Your task to perform on an android device: Go to sound settings Image 0: 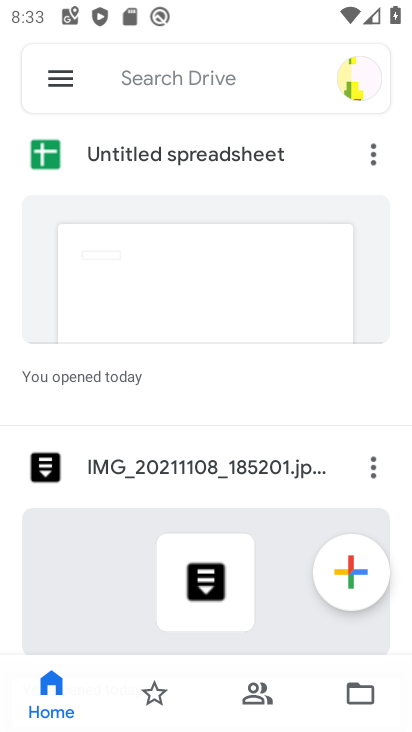
Step 0: press home button
Your task to perform on an android device: Go to sound settings Image 1: 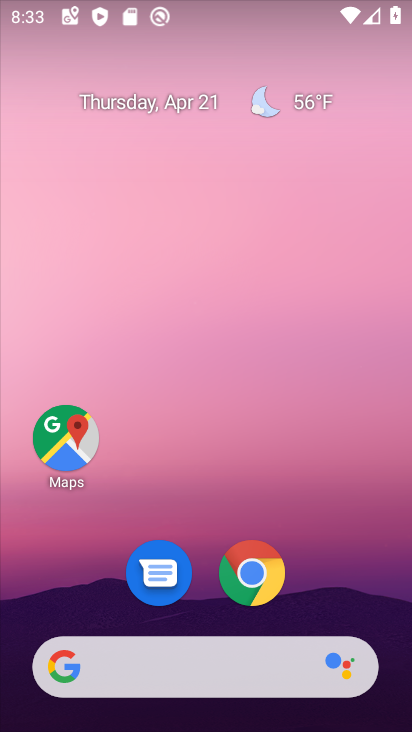
Step 1: drag from (322, 495) to (278, 15)
Your task to perform on an android device: Go to sound settings Image 2: 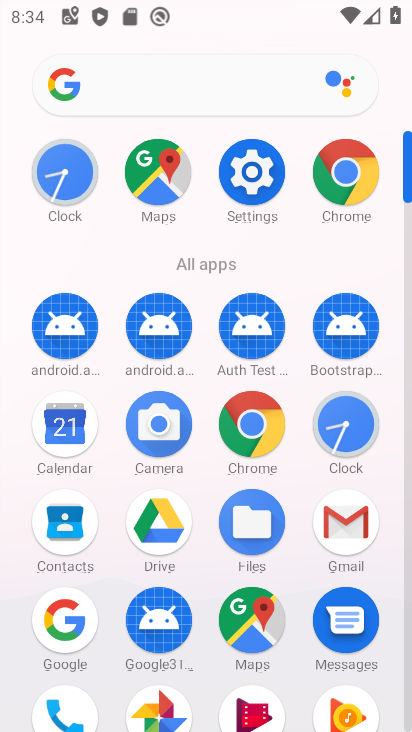
Step 2: click (247, 185)
Your task to perform on an android device: Go to sound settings Image 3: 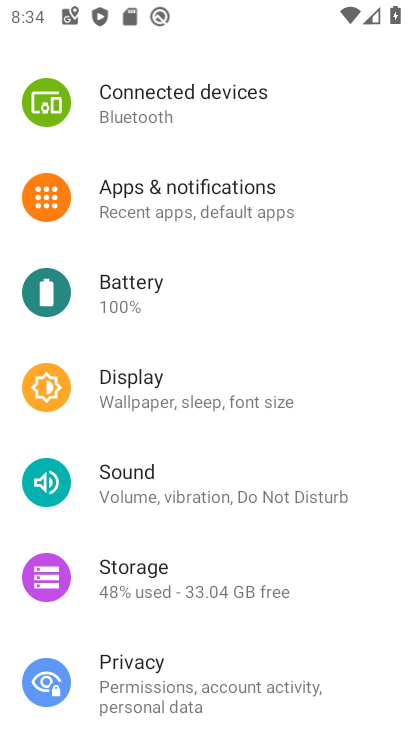
Step 3: click (156, 489)
Your task to perform on an android device: Go to sound settings Image 4: 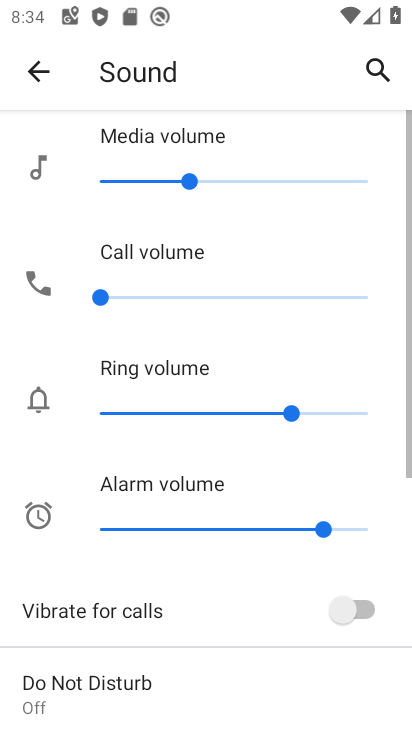
Step 4: task complete